Your task to perform on an android device: Open the phone app and click the voicemail tab. Image 0: 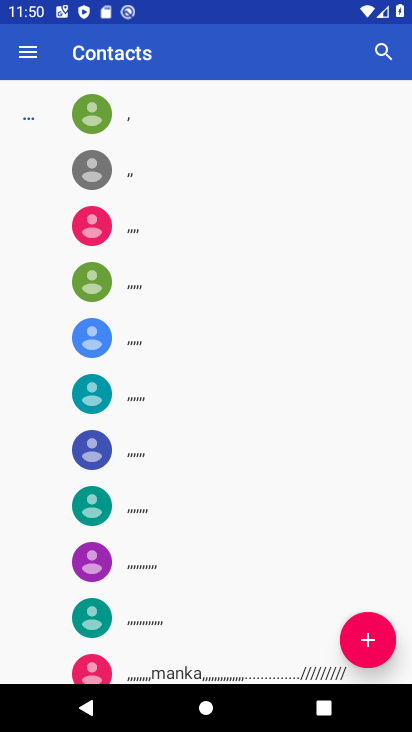
Step 0: press home button
Your task to perform on an android device: Open the phone app and click the voicemail tab. Image 1: 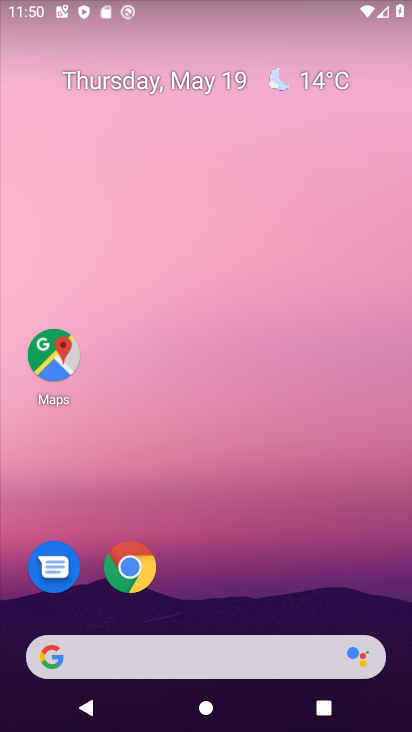
Step 1: drag from (279, 506) to (247, 0)
Your task to perform on an android device: Open the phone app and click the voicemail tab. Image 2: 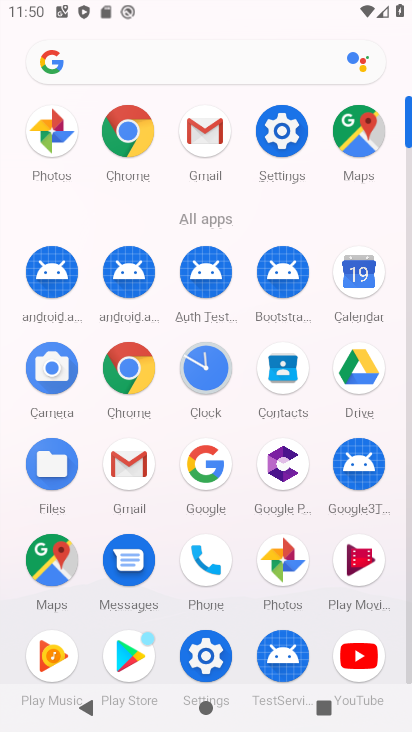
Step 2: click (198, 557)
Your task to perform on an android device: Open the phone app and click the voicemail tab. Image 3: 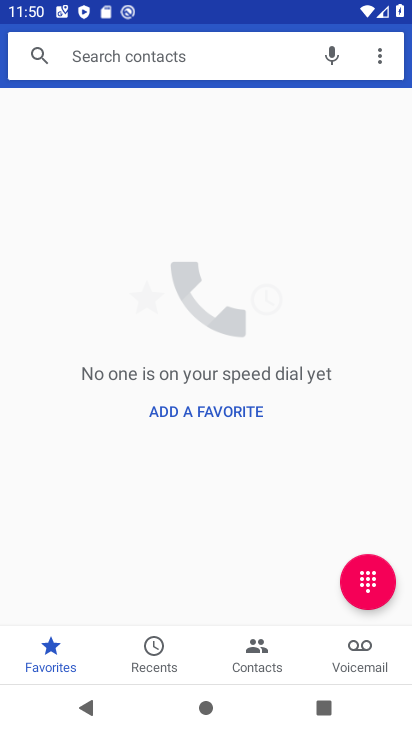
Step 3: click (364, 643)
Your task to perform on an android device: Open the phone app and click the voicemail tab. Image 4: 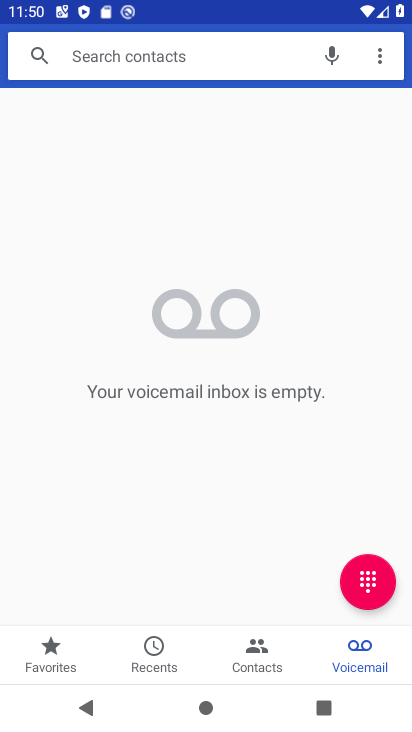
Step 4: task complete